Your task to perform on an android device: Open calendar and show me the fourth week of next month Image 0: 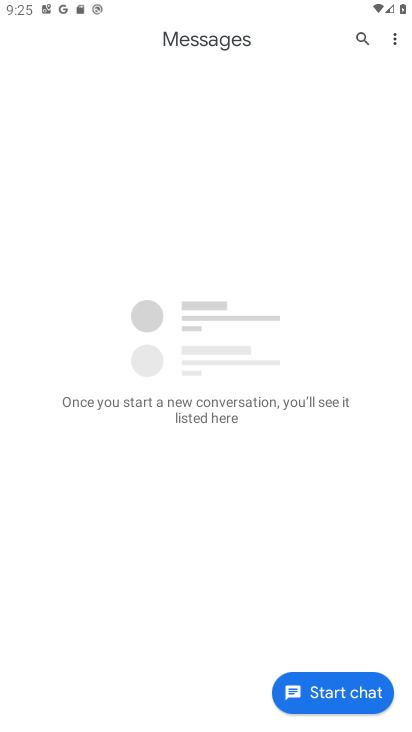
Step 0: press back button
Your task to perform on an android device: Open calendar and show me the fourth week of next month Image 1: 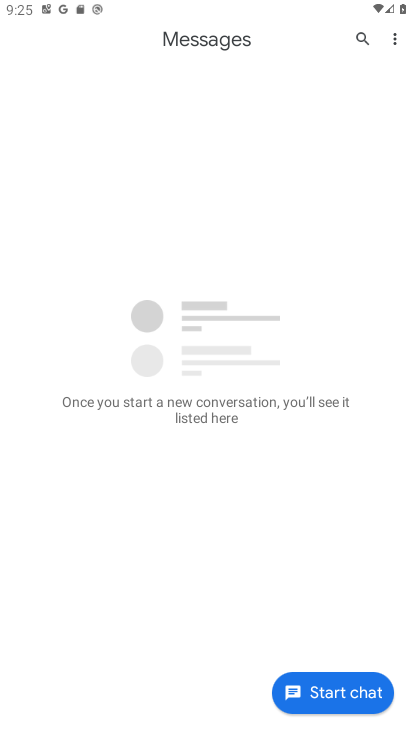
Step 1: press back button
Your task to perform on an android device: Open calendar and show me the fourth week of next month Image 2: 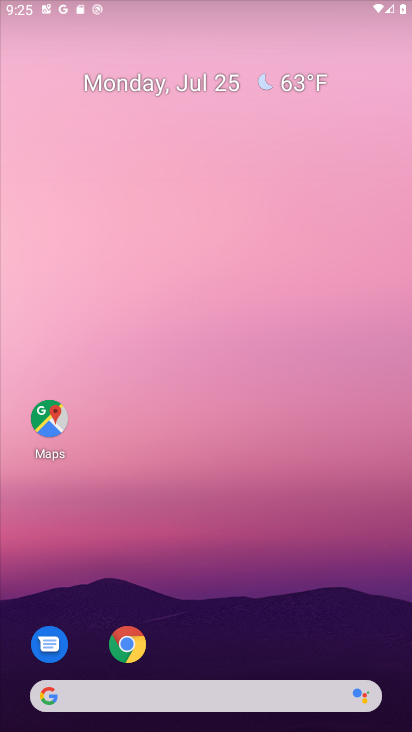
Step 2: press back button
Your task to perform on an android device: Open calendar and show me the fourth week of next month Image 3: 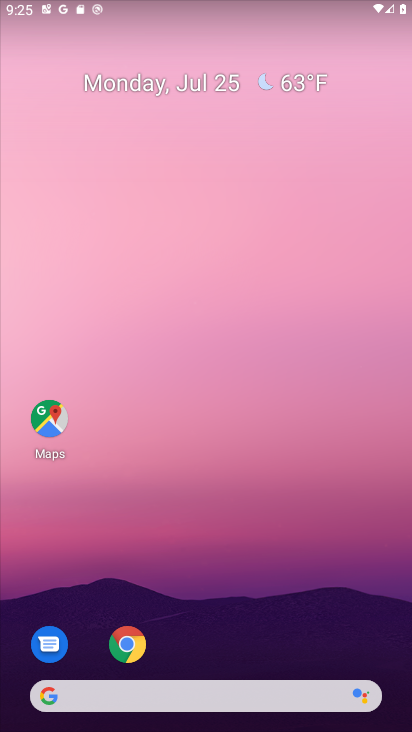
Step 3: drag from (225, 623) to (124, 4)
Your task to perform on an android device: Open calendar and show me the fourth week of next month Image 4: 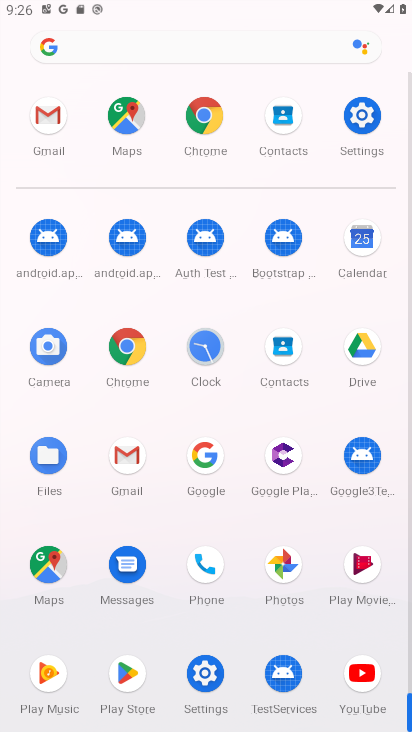
Step 4: click (366, 249)
Your task to perform on an android device: Open calendar and show me the fourth week of next month Image 5: 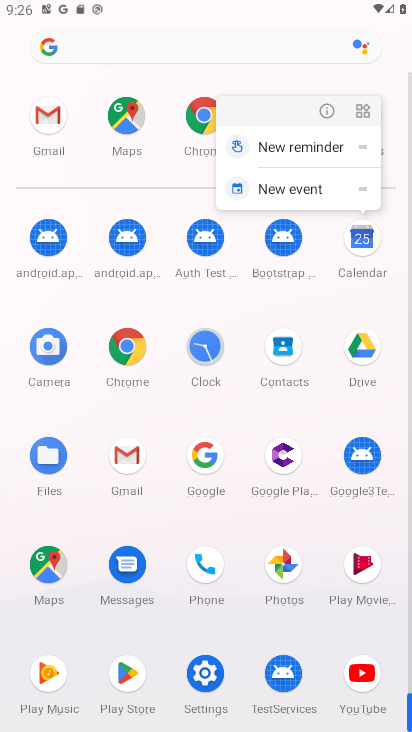
Step 5: click (360, 242)
Your task to perform on an android device: Open calendar and show me the fourth week of next month Image 6: 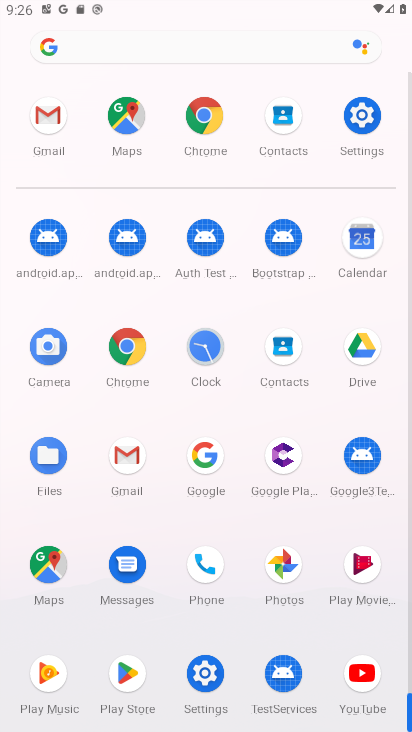
Step 6: click (359, 242)
Your task to perform on an android device: Open calendar and show me the fourth week of next month Image 7: 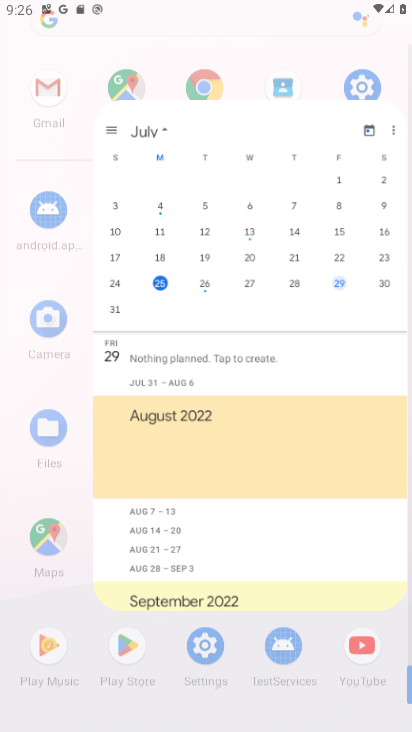
Step 7: click (365, 241)
Your task to perform on an android device: Open calendar and show me the fourth week of next month Image 8: 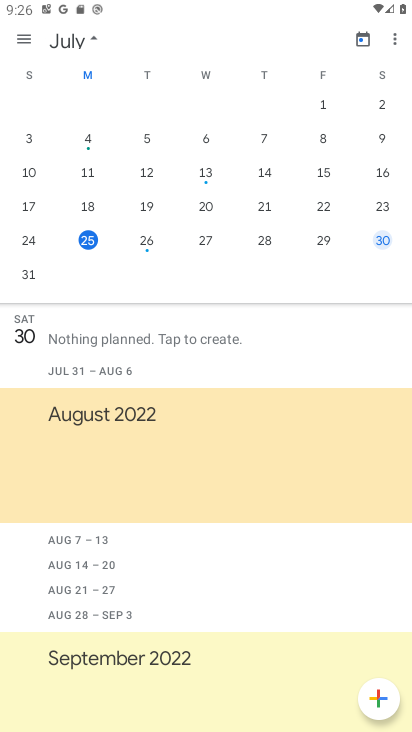
Step 8: drag from (315, 167) to (0, 176)
Your task to perform on an android device: Open calendar and show me the fourth week of next month Image 9: 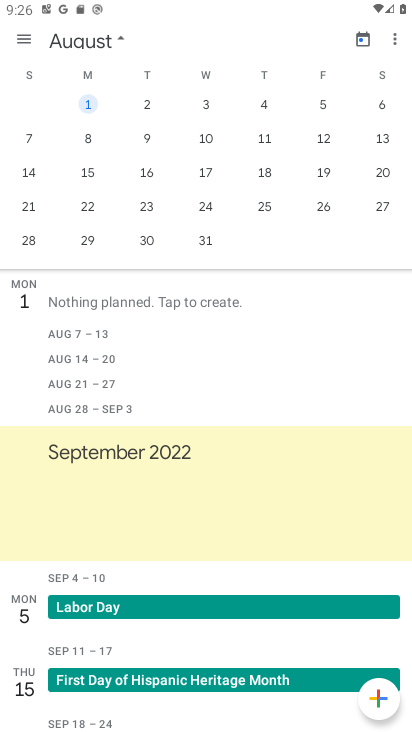
Step 9: click (144, 206)
Your task to perform on an android device: Open calendar and show me the fourth week of next month Image 10: 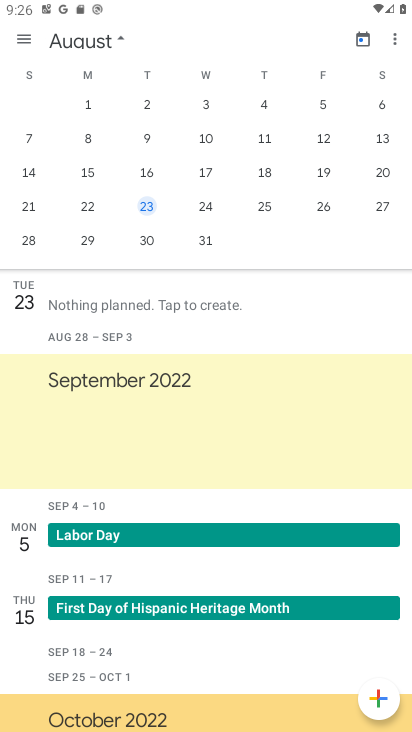
Step 10: click (145, 207)
Your task to perform on an android device: Open calendar and show me the fourth week of next month Image 11: 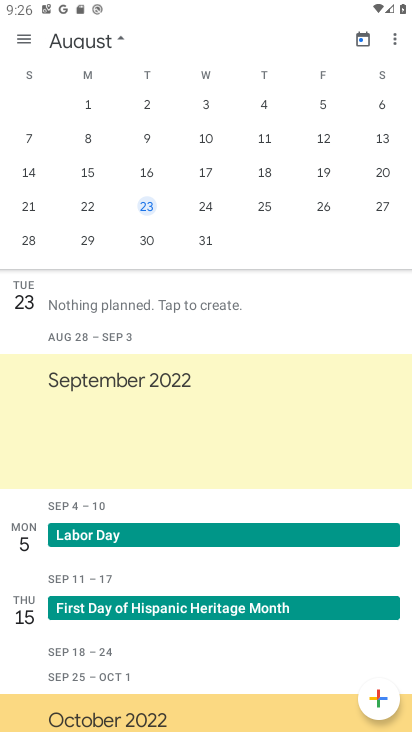
Step 11: task complete